Your task to perform on an android device: open chrome and create a bookmark for the current page Image 0: 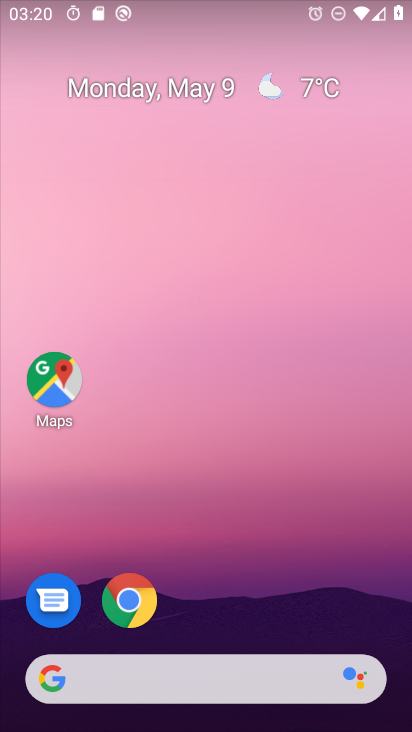
Step 0: drag from (190, 679) to (164, 444)
Your task to perform on an android device: open chrome and create a bookmark for the current page Image 1: 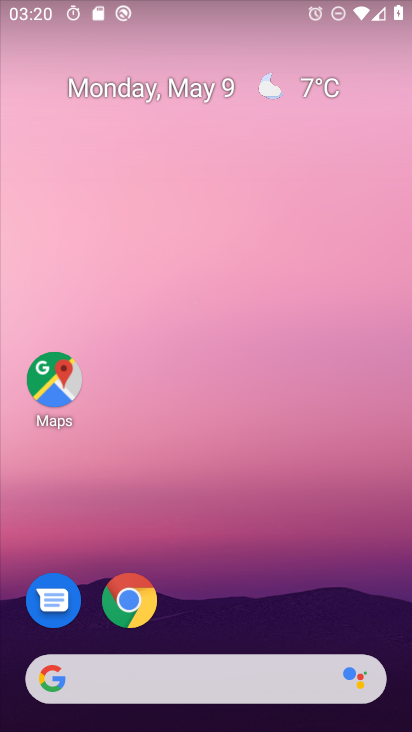
Step 1: click (144, 618)
Your task to perform on an android device: open chrome and create a bookmark for the current page Image 2: 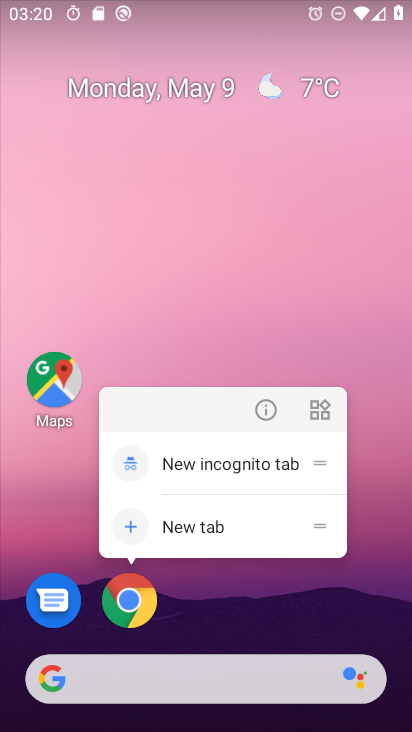
Step 2: click (144, 618)
Your task to perform on an android device: open chrome and create a bookmark for the current page Image 3: 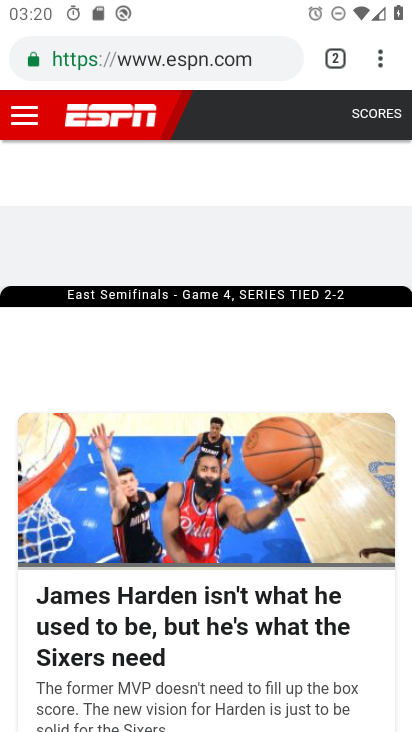
Step 3: click (380, 52)
Your task to perform on an android device: open chrome and create a bookmark for the current page Image 4: 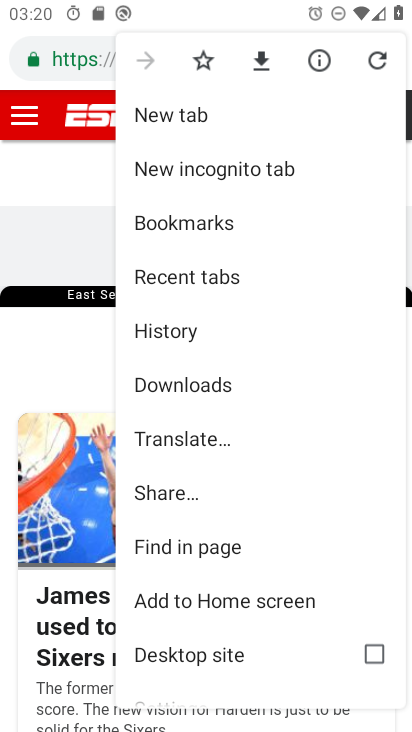
Step 4: click (215, 63)
Your task to perform on an android device: open chrome and create a bookmark for the current page Image 5: 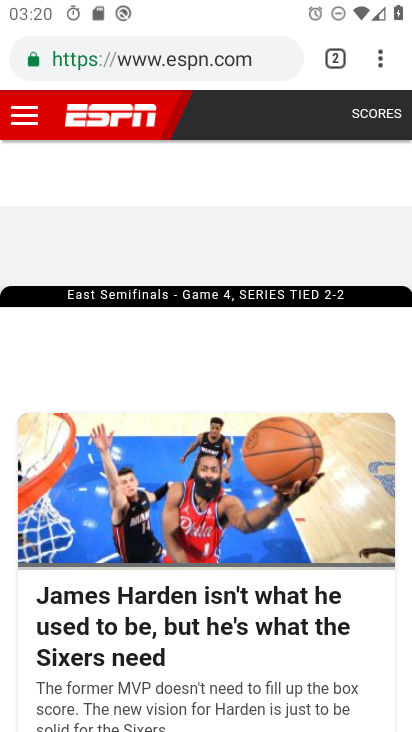
Step 5: task complete